Your task to perform on an android device: Is it going to rain tomorrow? Image 0: 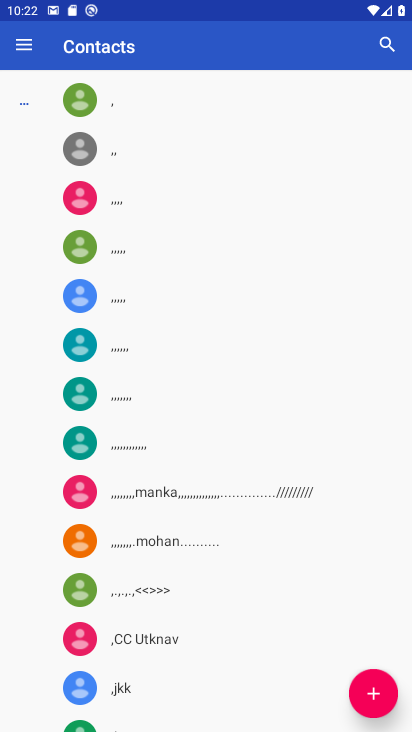
Step 0: press home button
Your task to perform on an android device: Is it going to rain tomorrow? Image 1: 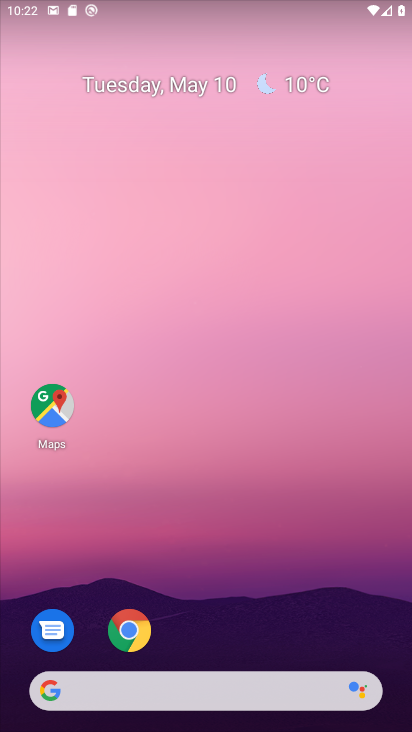
Step 1: click (304, 78)
Your task to perform on an android device: Is it going to rain tomorrow? Image 2: 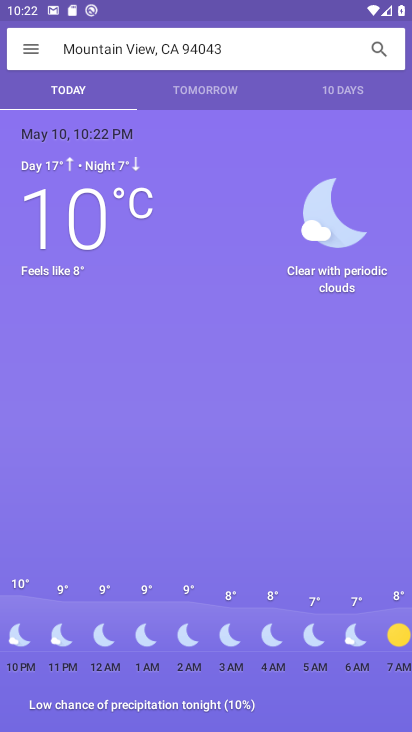
Step 2: click (193, 90)
Your task to perform on an android device: Is it going to rain tomorrow? Image 3: 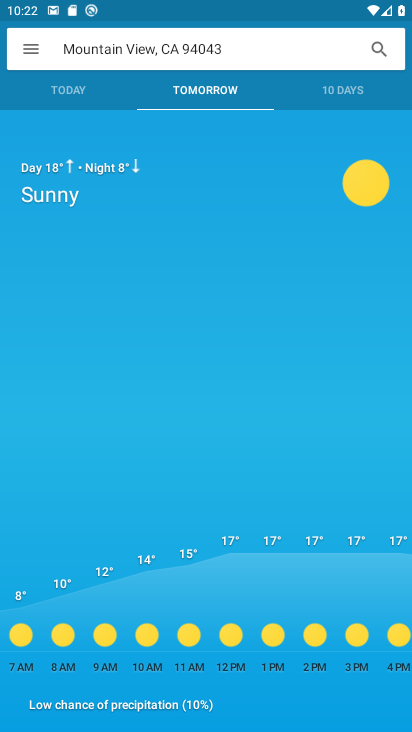
Step 3: task complete